Your task to perform on an android device: open a bookmark in the chrome app Image 0: 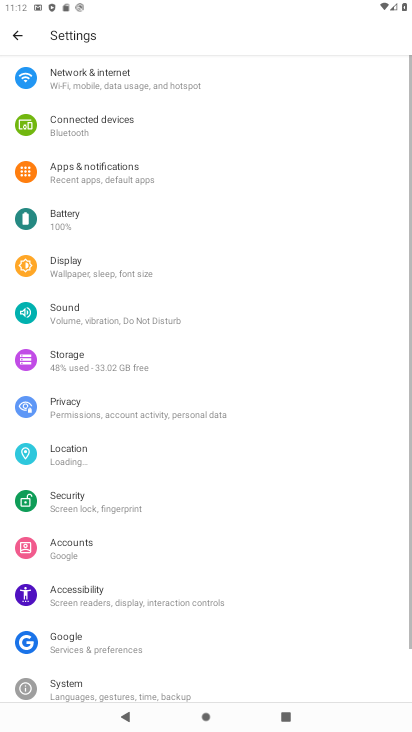
Step 0: drag from (181, 641) to (307, 237)
Your task to perform on an android device: open a bookmark in the chrome app Image 1: 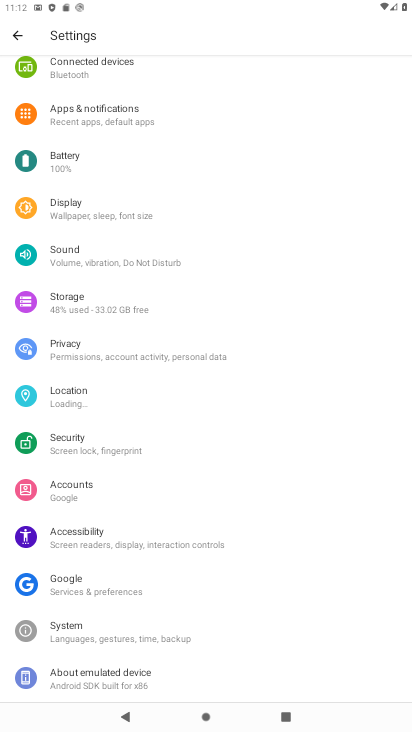
Step 1: press home button
Your task to perform on an android device: open a bookmark in the chrome app Image 2: 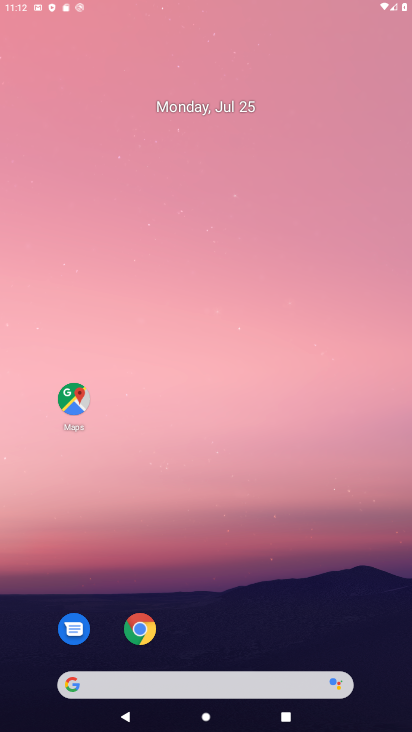
Step 2: drag from (256, 422) to (352, 104)
Your task to perform on an android device: open a bookmark in the chrome app Image 3: 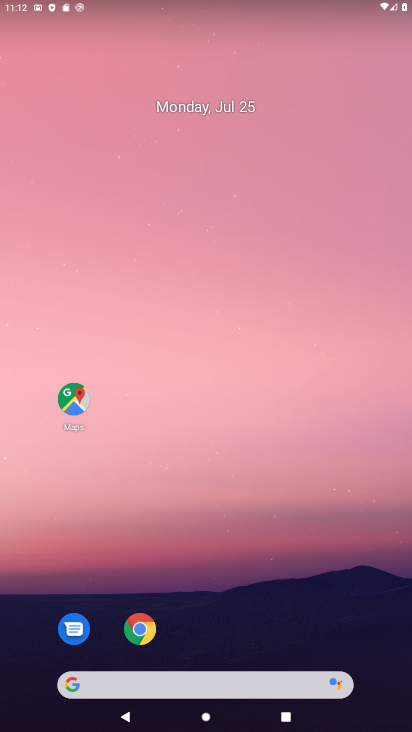
Step 3: drag from (206, 611) to (298, 174)
Your task to perform on an android device: open a bookmark in the chrome app Image 4: 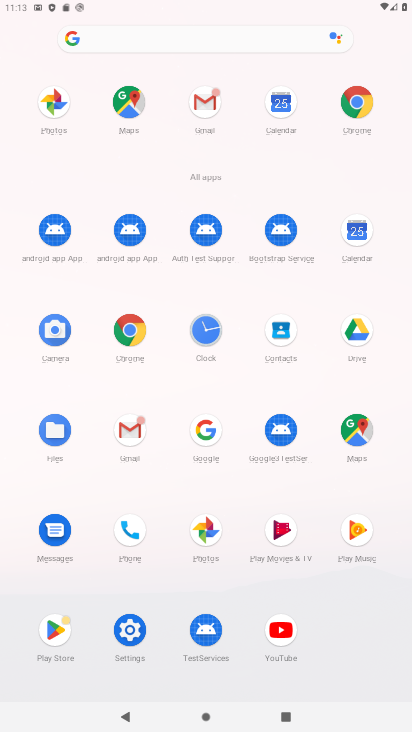
Step 4: click (120, 330)
Your task to perform on an android device: open a bookmark in the chrome app Image 5: 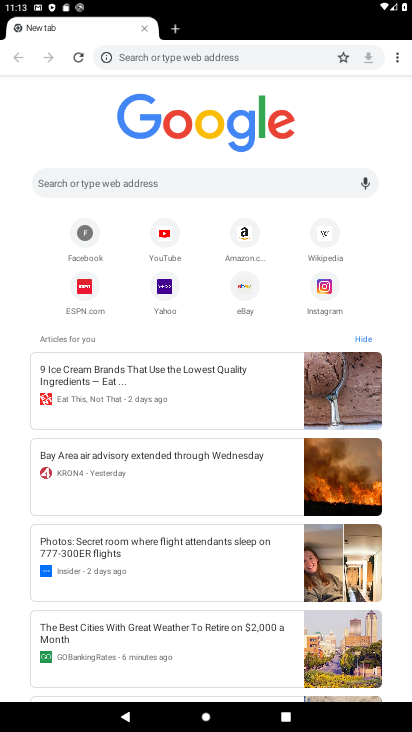
Step 5: task complete